Your task to perform on an android device: toggle show notifications on the lock screen Image 0: 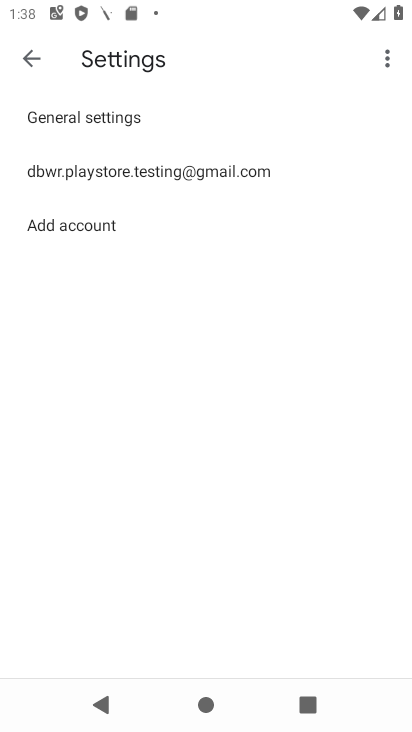
Step 0: press home button
Your task to perform on an android device: toggle show notifications on the lock screen Image 1: 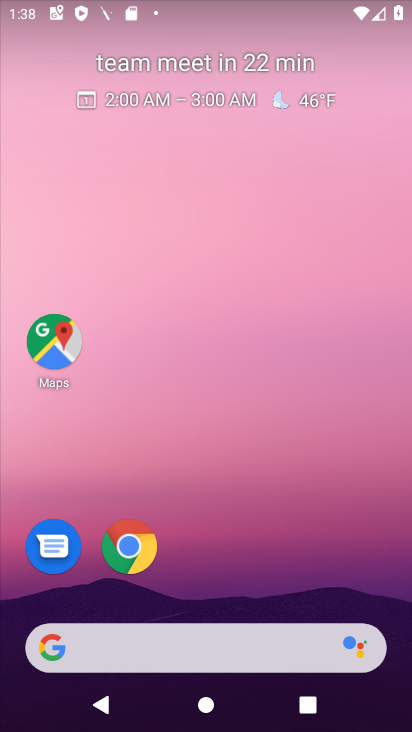
Step 1: drag from (396, 638) to (315, 45)
Your task to perform on an android device: toggle show notifications on the lock screen Image 2: 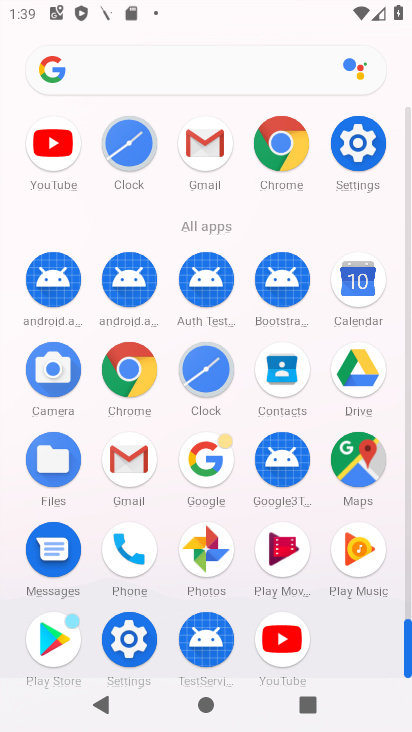
Step 2: click (130, 642)
Your task to perform on an android device: toggle show notifications on the lock screen Image 3: 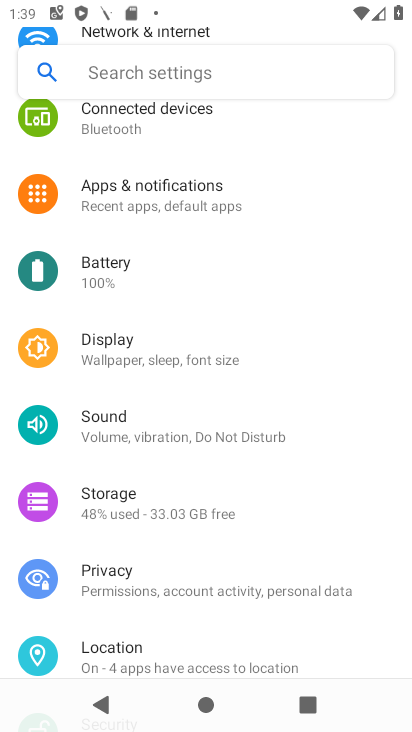
Step 3: click (154, 192)
Your task to perform on an android device: toggle show notifications on the lock screen Image 4: 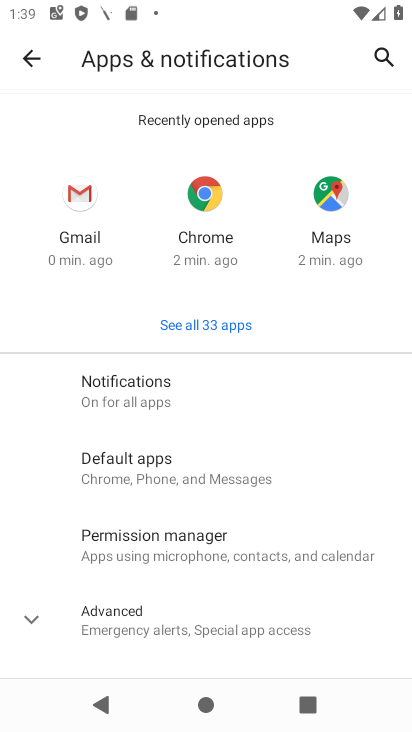
Step 4: click (142, 402)
Your task to perform on an android device: toggle show notifications on the lock screen Image 5: 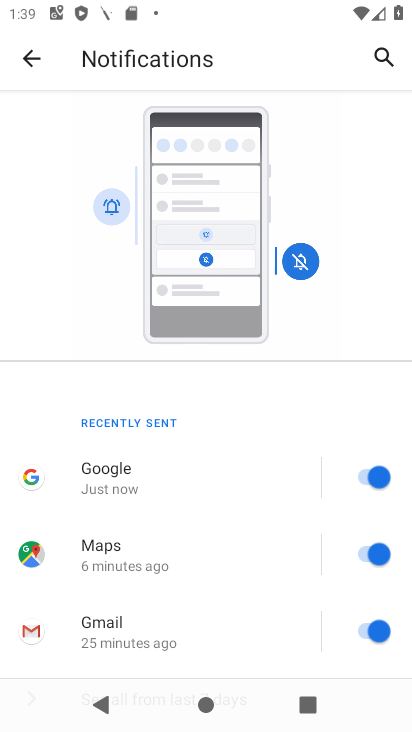
Step 5: drag from (278, 646) to (250, 92)
Your task to perform on an android device: toggle show notifications on the lock screen Image 6: 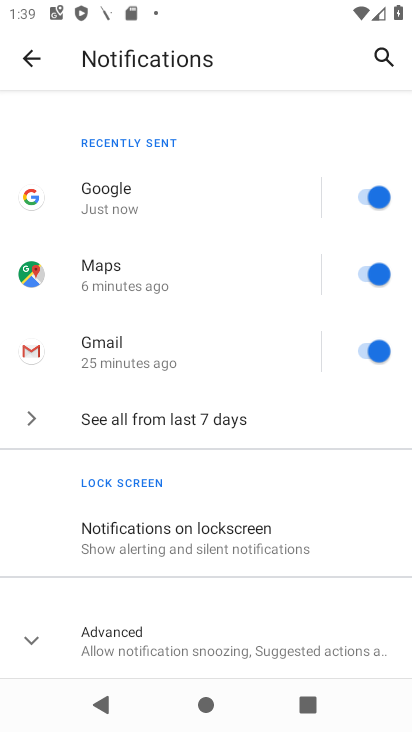
Step 6: click (176, 526)
Your task to perform on an android device: toggle show notifications on the lock screen Image 7: 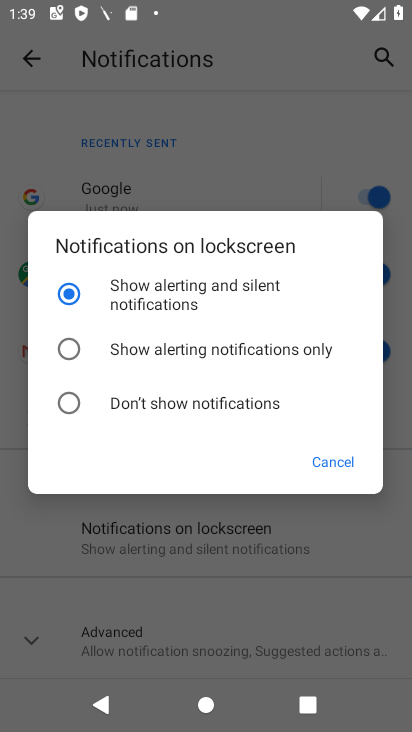
Step 7: click (66, 344)
Your task to perform on an android device: toggle show notifications on the lock screen Image 8: 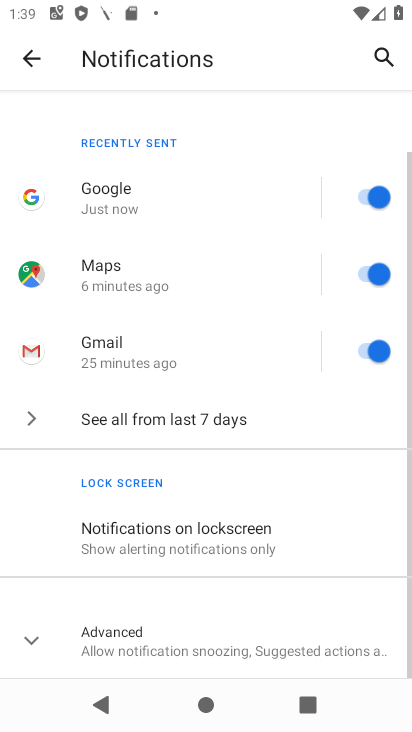
Step 8: task complete